Your task to perform on an android device: manage bookmarks in the chrome app Image 0: 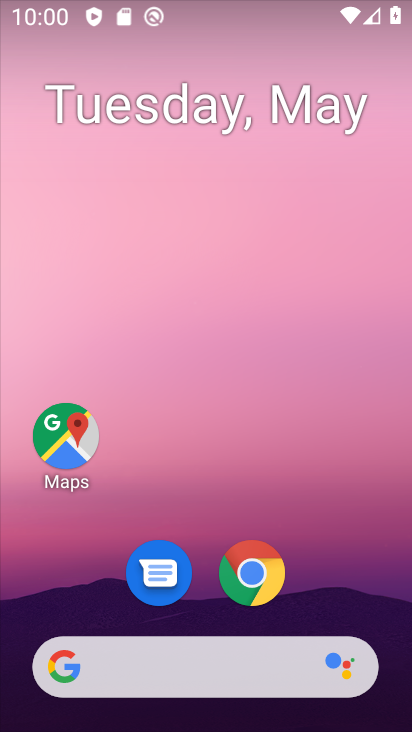
Step 0: click (256, 574)
Your task to perform on an android device: manage bookmarks in the chrome app Image 1: 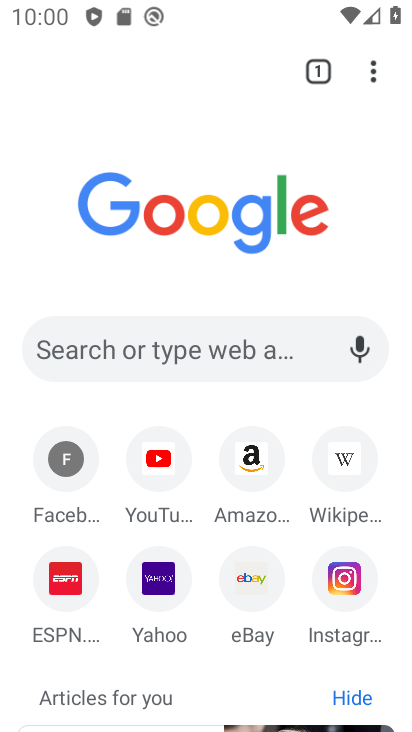
Step 1: drag from (365, 68) to (220, 265)
Your task to perform on an android device: manage bookmarks in the chrome app Image 2: 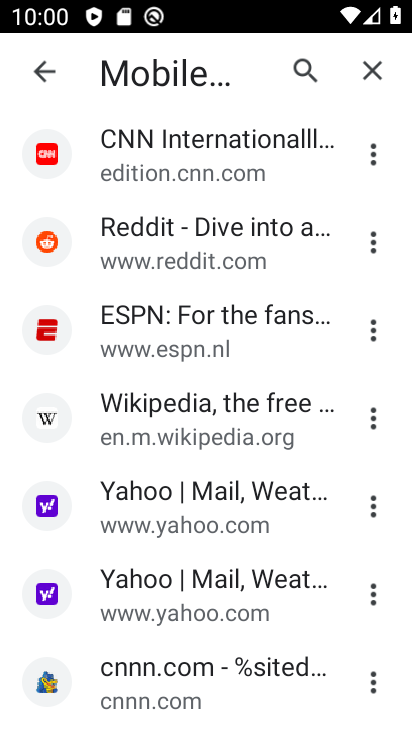
Step 2: click (375, 237)
Your task to perform on an android device: manage bookmarks in the chrome app Image 3: 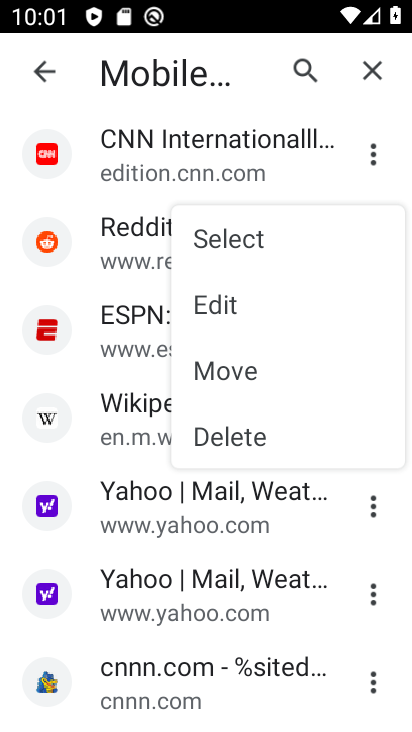
Step 3: click (212, 371)
Your task to perform on an android device: manage bookmarks in the chrome app Image 4: 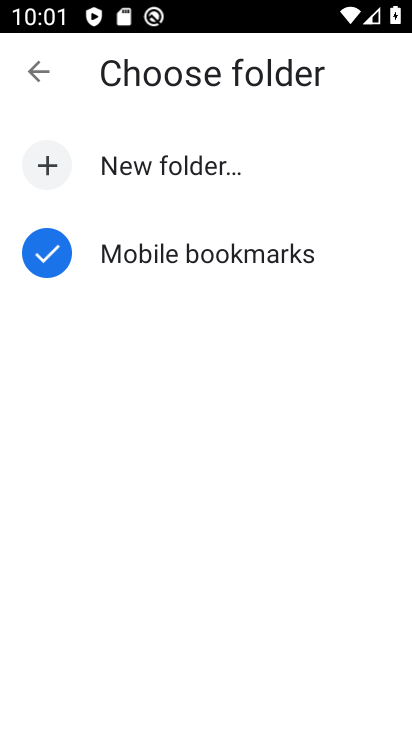
Step 4: click (179, 170)
Your task to perform on an android device: manage bookmarks in the chrome app Image 5: 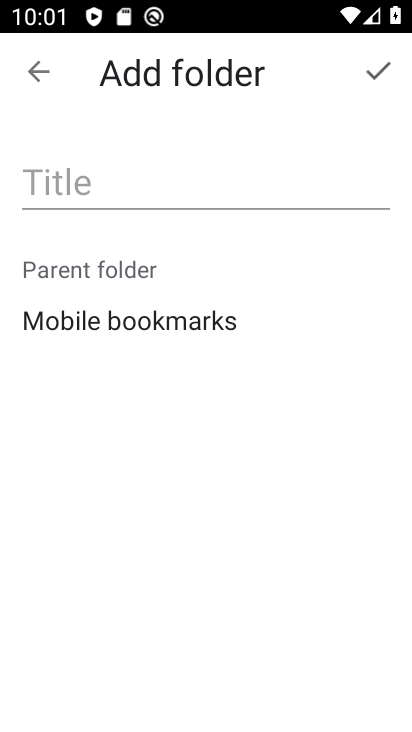
Step 5: click (194, 203)
Your task to perform on an android device: manage bookmarks in the chrome app Image 6: 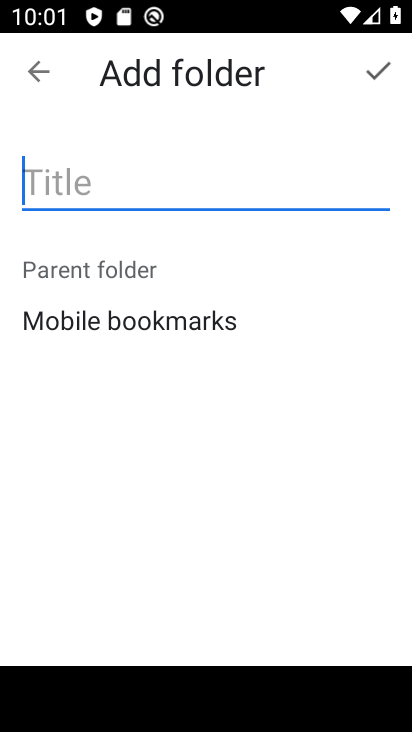
Step 6: type "bbb"
Your task to perform on an android device: manage bookmarks in the chrome app Image 7: 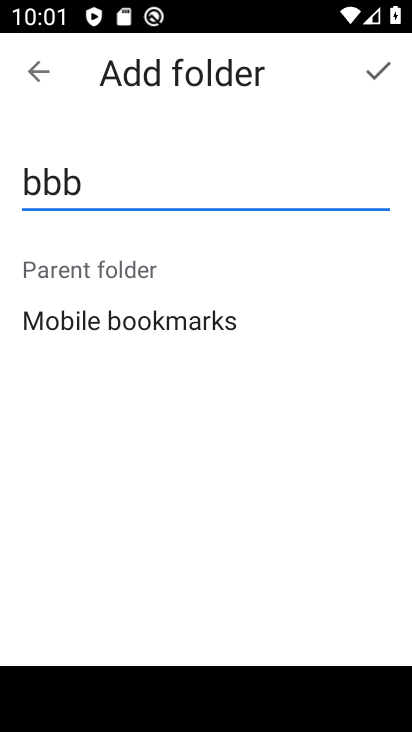
Step 7: click (383, 67)
Your task to perform on an android device: manage bookmarks in the chrome app Image 8: 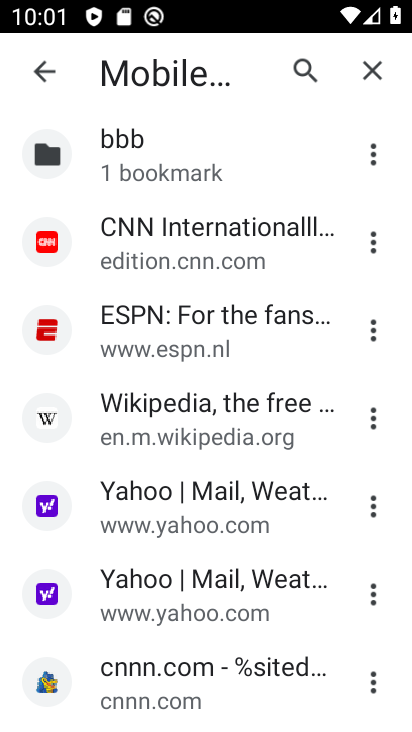
Step 8: task complete